Your task to perform on an android device: change the clock style Image 0: 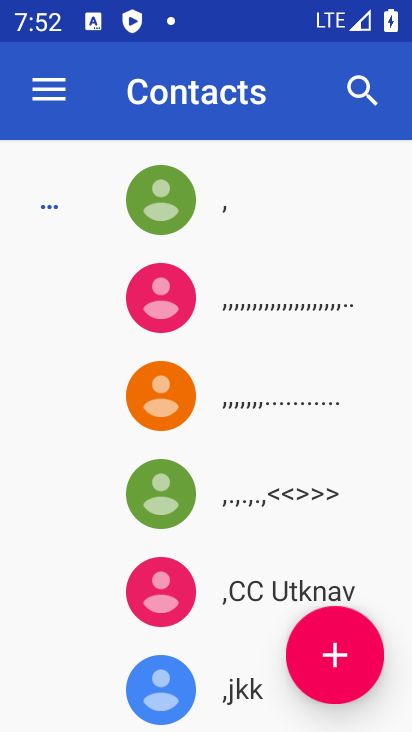
Step 0: press home button
Your task to perform on an android device: change the clock style Image 1: 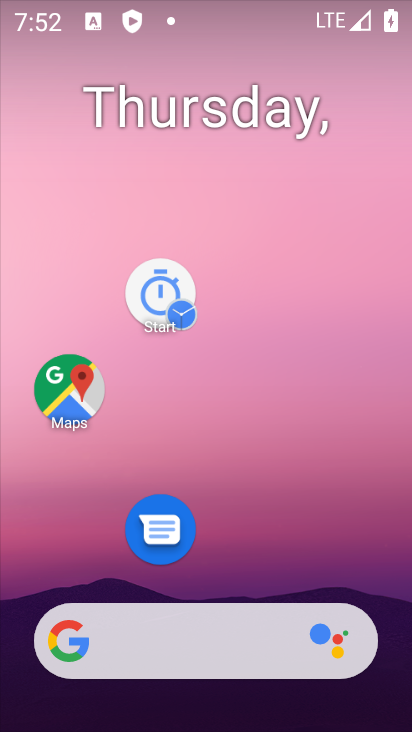
Step 1: drag from (317, 533) to (241, 255)
Your task to perform on an android device: change the clock style Image 2: 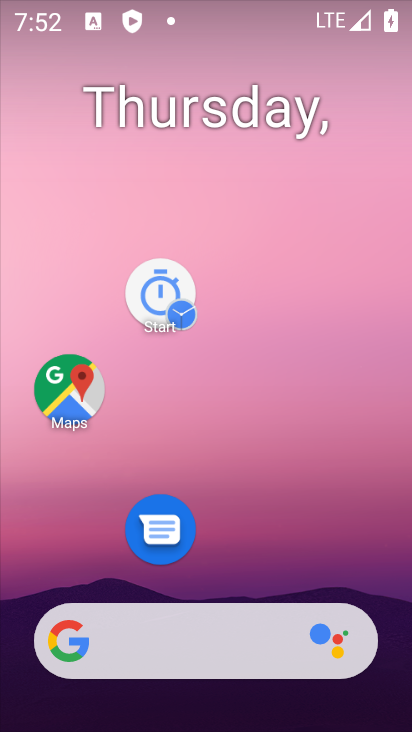
Step 2: drag from (290, 468) to (249, 204)
Your task to perform on an android device: change the clock style Image 3: 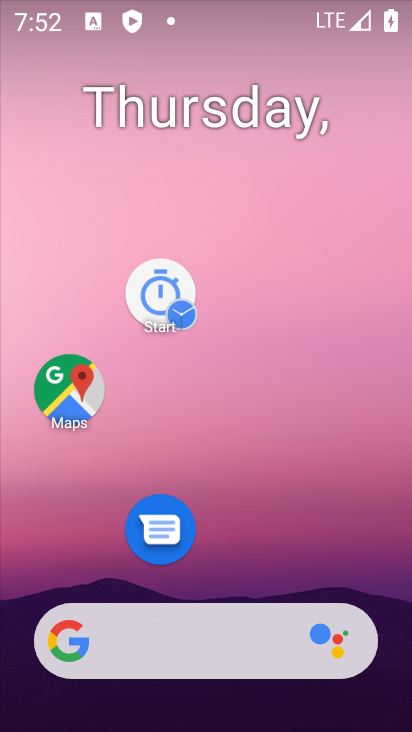
Step 3: drag from (286, 532) to (291, 183)
Your task to perform on an android device: change the clock style Image 4: 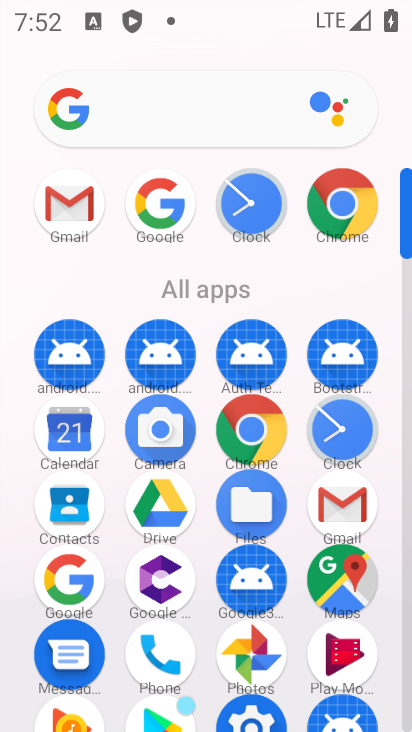
Step 4: click (325, 432)
Your task to perform on an android device: change the clock style Image 5: 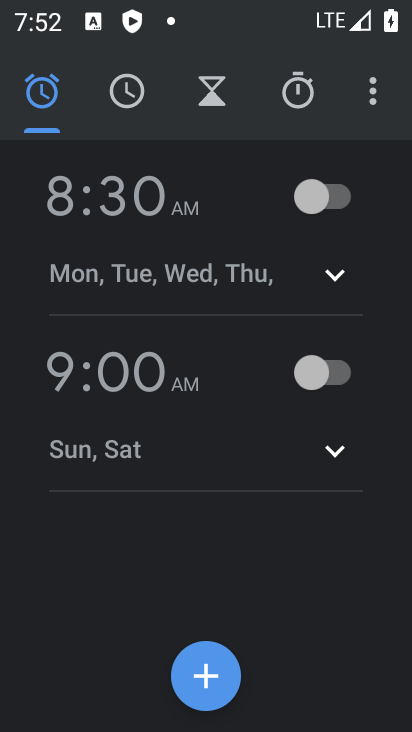
Step 5: click (369, 102)
Your task to perform on an android device: change the clock style Image 6: 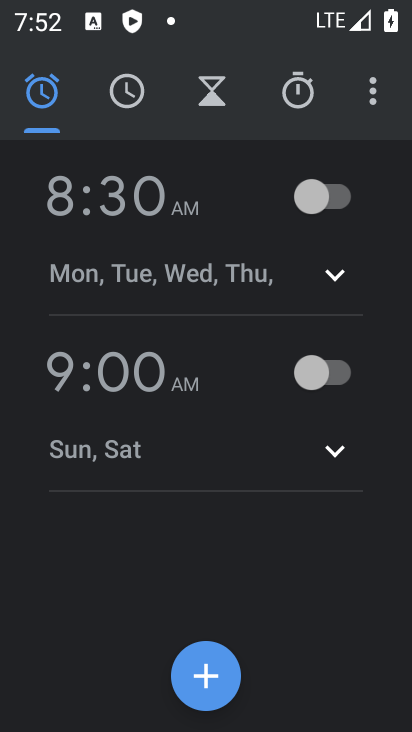
Step 6: click (377, 105)
Your task to perform on an android device: change the clock style Image 7: 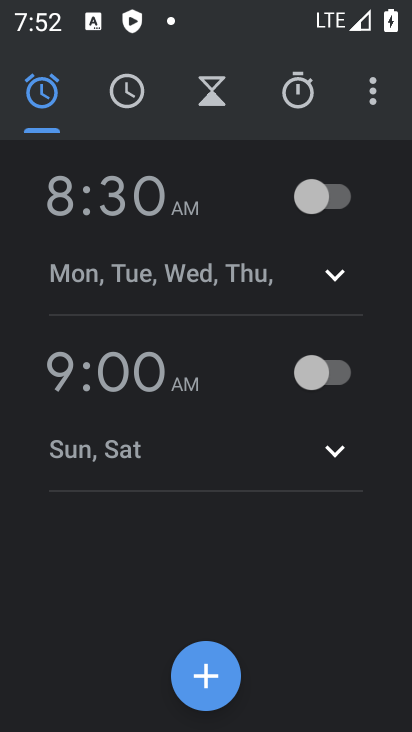
Step 7: click (368, 94)
Your task to perform on an android device: change the clock style Image 8: 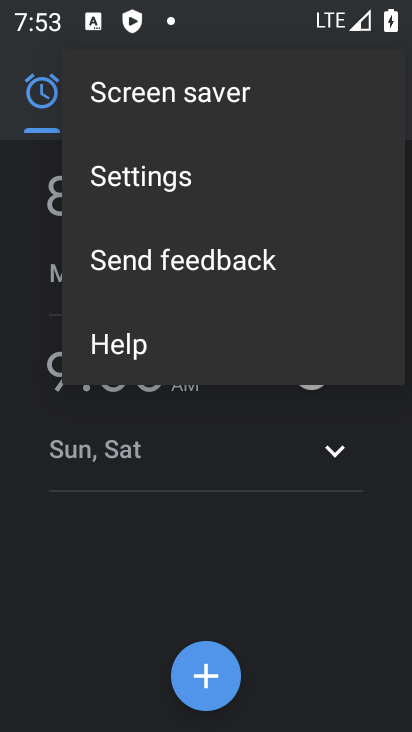
Step 8: click (169, 183)
Your task to perform on an android device: change the clock style Image 9: 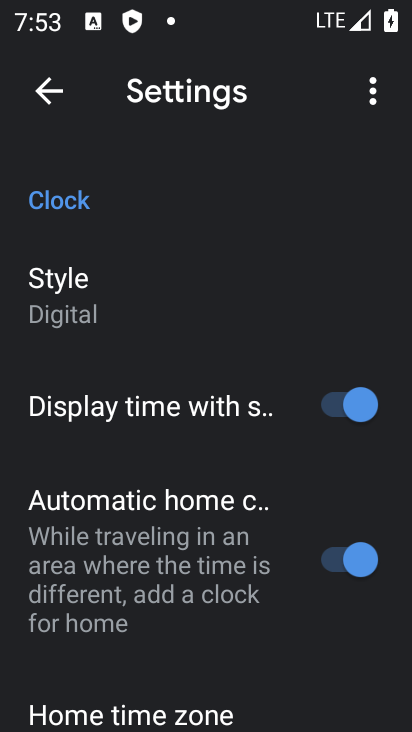
Step 9: click (86, 280)
Your task to perform on an android device: change the clock style Image 10: 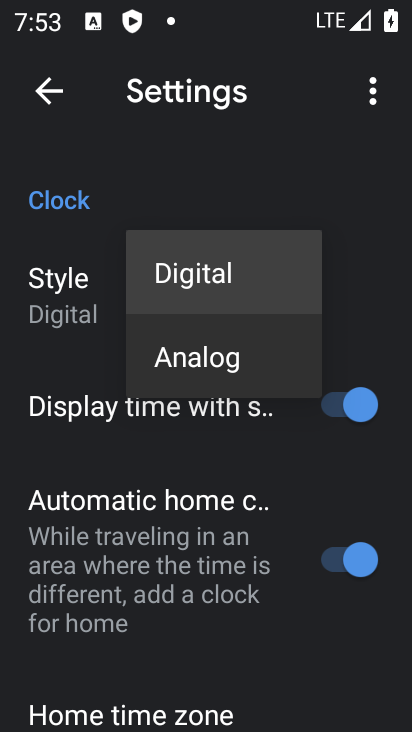
Step 10: click (180, 357)
Your task to perform on an android device: change the clock style Image 11: 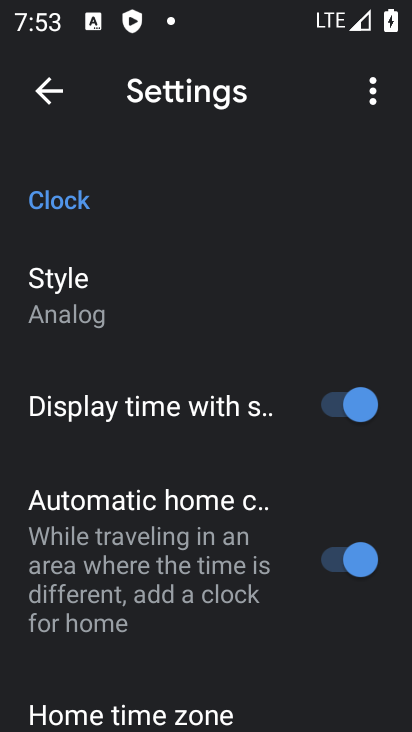
Step 11: task complete